Your task to perform on an android device: Is it going to rain today? Image 0: 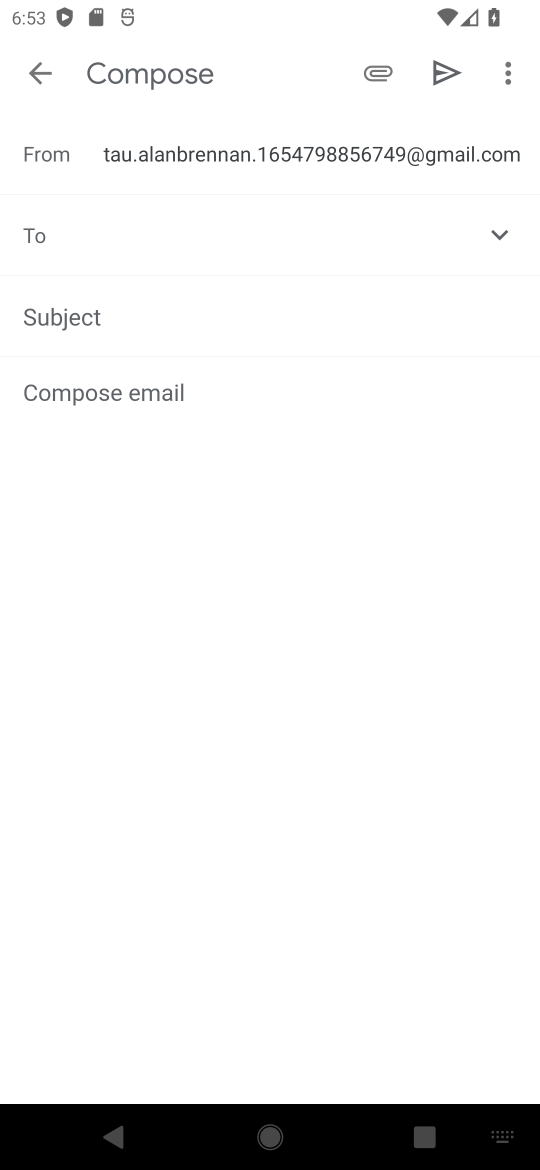
Step 0: press home button
Your task to perform on an android device: Is it going to rain today? Image 1: 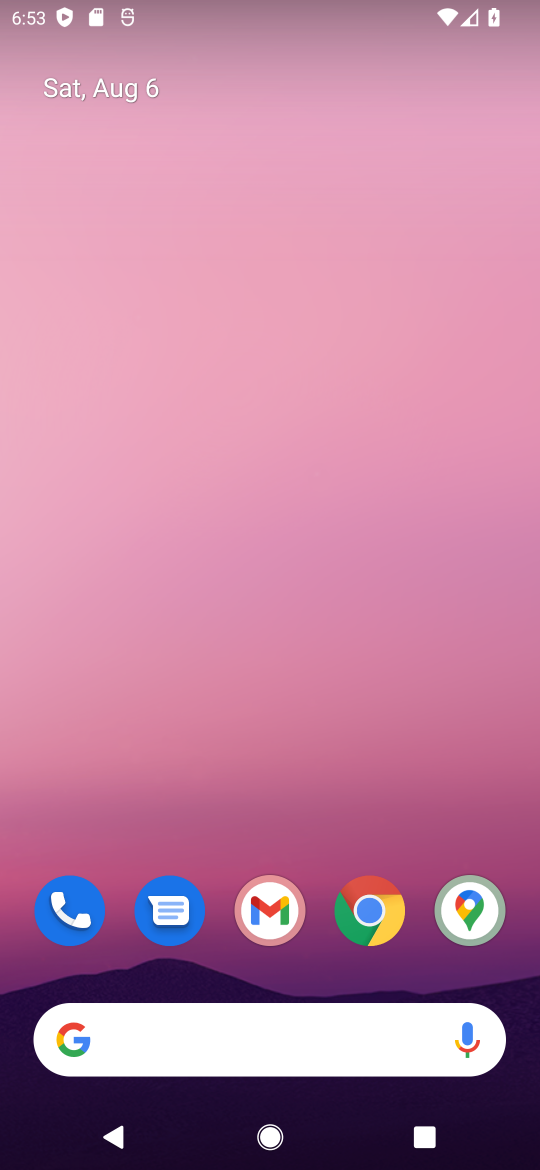
Step 1: task complete